Your task to perform on an android device: turn off notifications in google photos Image 0: 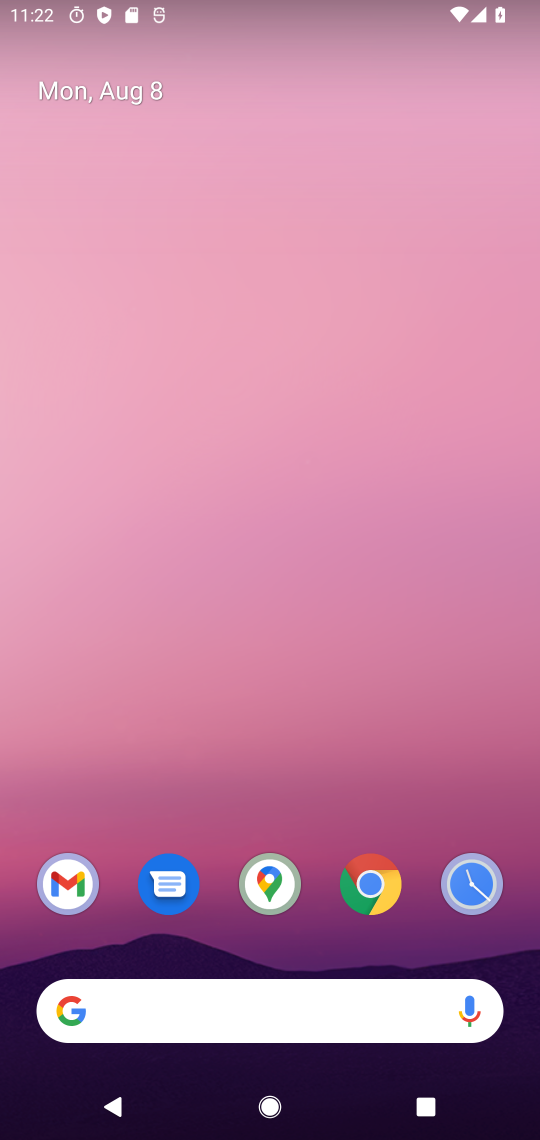
Step 0: click (190, 926)
Your task to perform on an android device: turn off notifications in google photos Image 1: 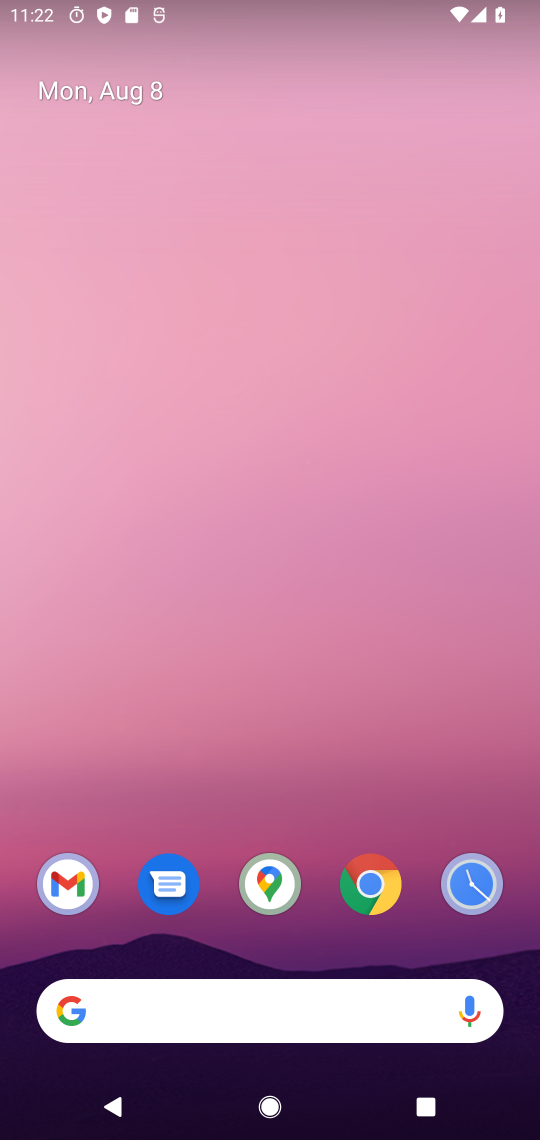
Step 1: drag from (267, 827) to (301, 387)
Your task to perform on an android device: turn off notifications in google photos Image 2: 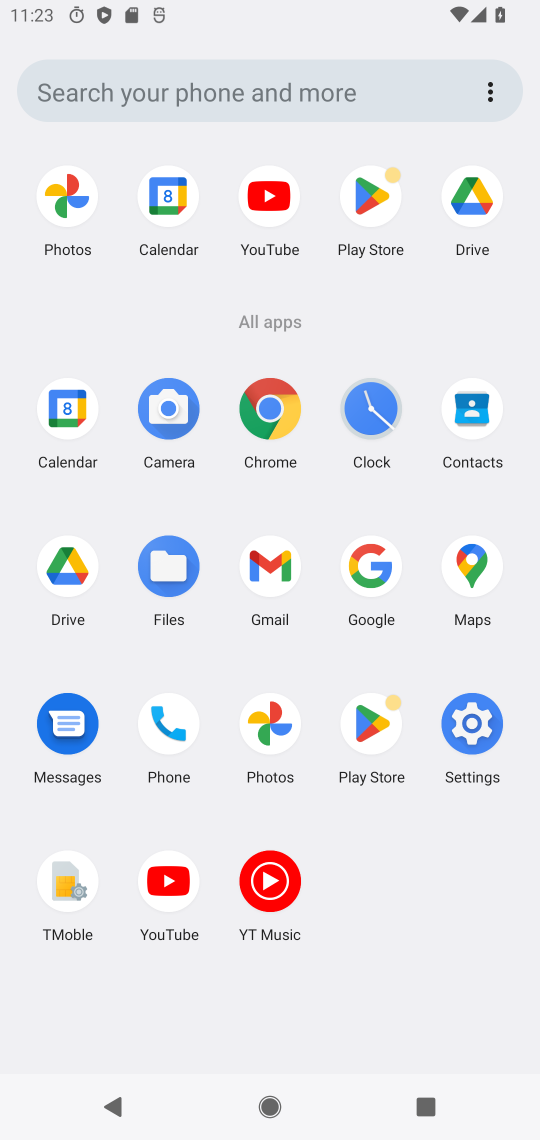
Step 2: click (68, 205)
Your task to perform on an android device: turn off notifications in google photos Image 3: 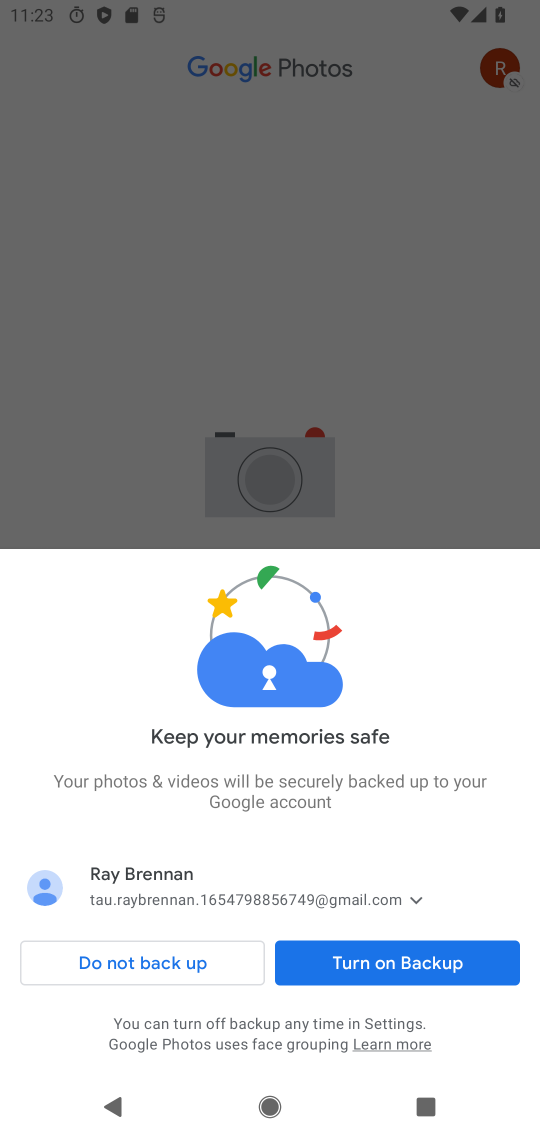
Step 3: click (356, 955)
Your task to perform on an android device: turn off notifications in google photos Image 4: 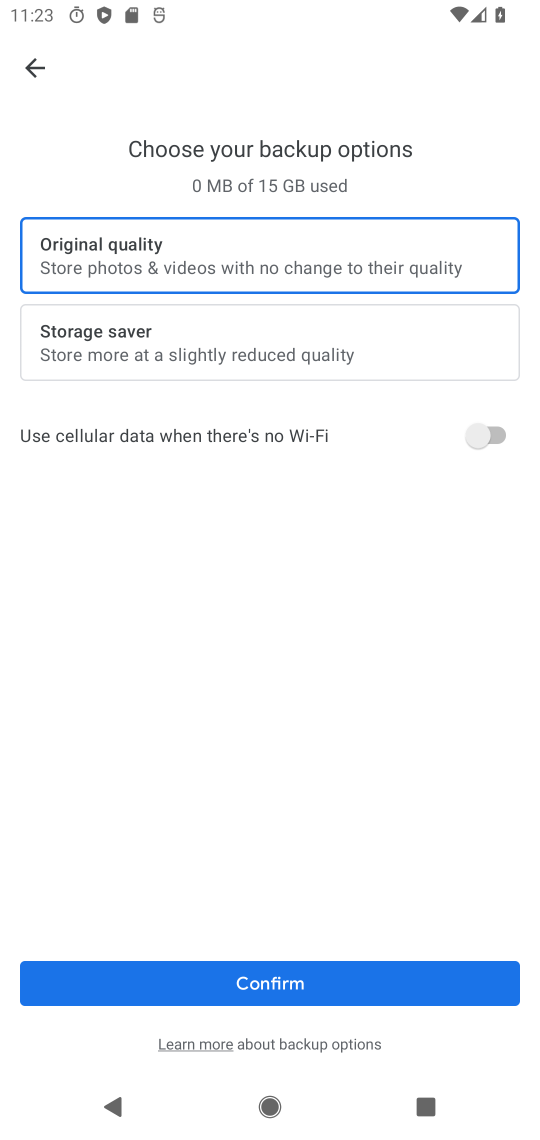
Step 4: click (201, 983)
Your task to perform on an android device: turn off notifications in google photos Image 5: 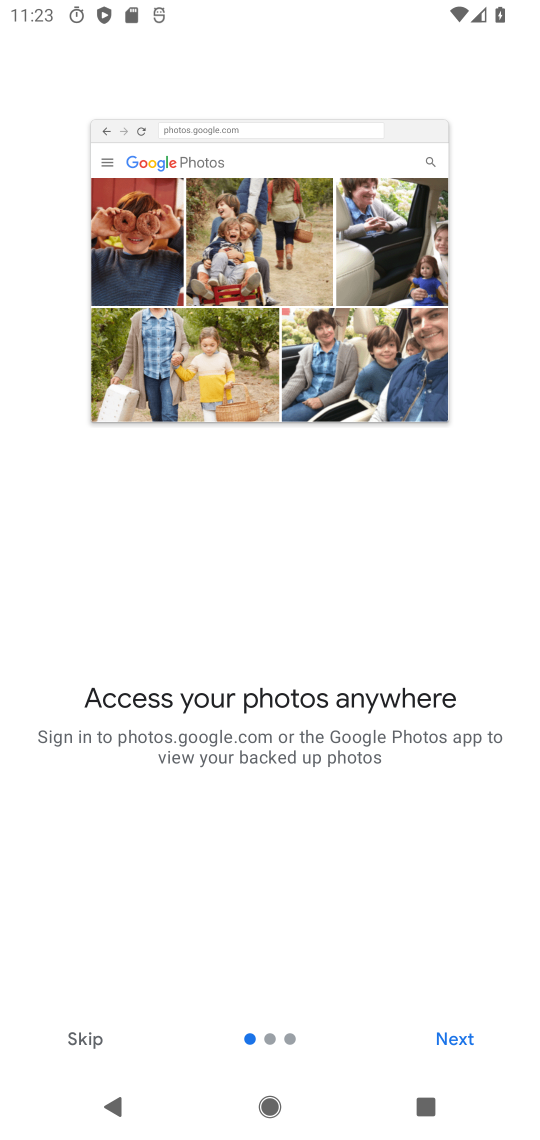
Step 5: click (474, 1041)
Your task to perform on an android device: turn off notifications in google photos Image 6: 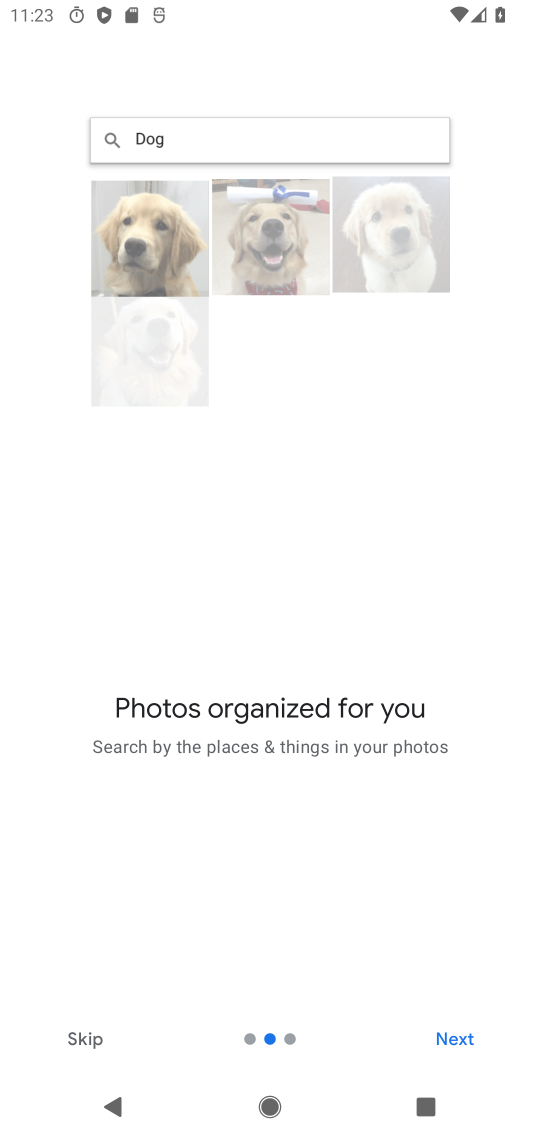
Step 6: click (474, 1041)
Your task to perform on an android device: turn off notifications in google photos Image 7: 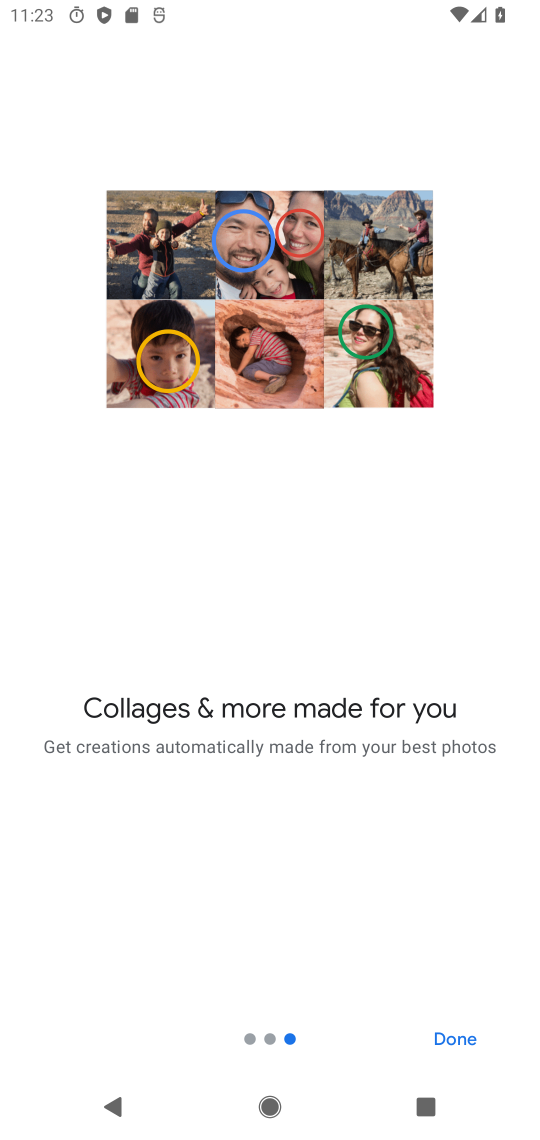
Step 7: click (474, 1041)
Your task to perform on an android device: turn off notifications in google photos Image 8: 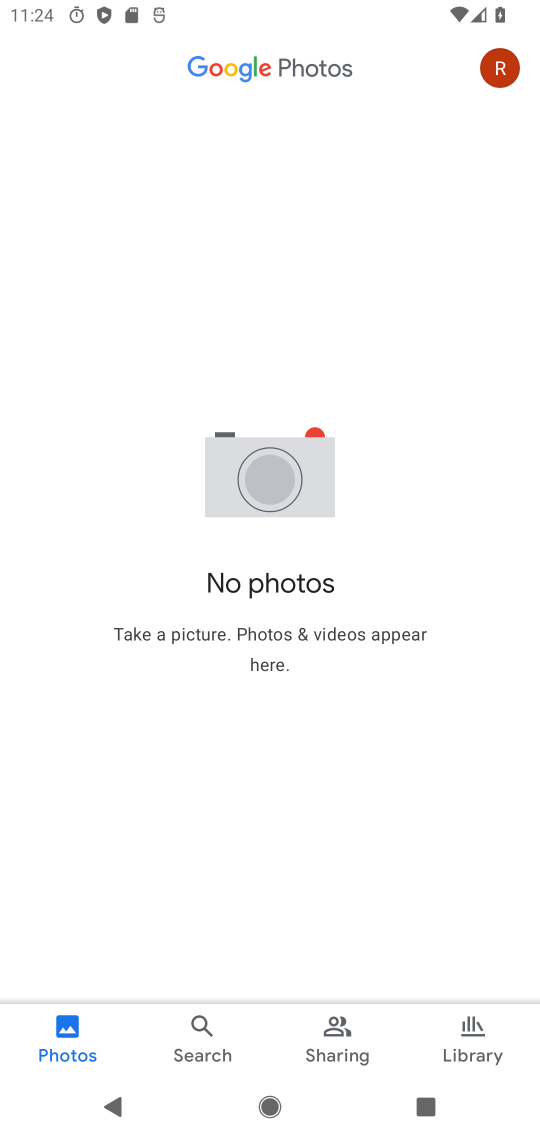
Step 8: click (503, 70)
Your task to perform on an android device: turn off notifications in google photos Image 9: 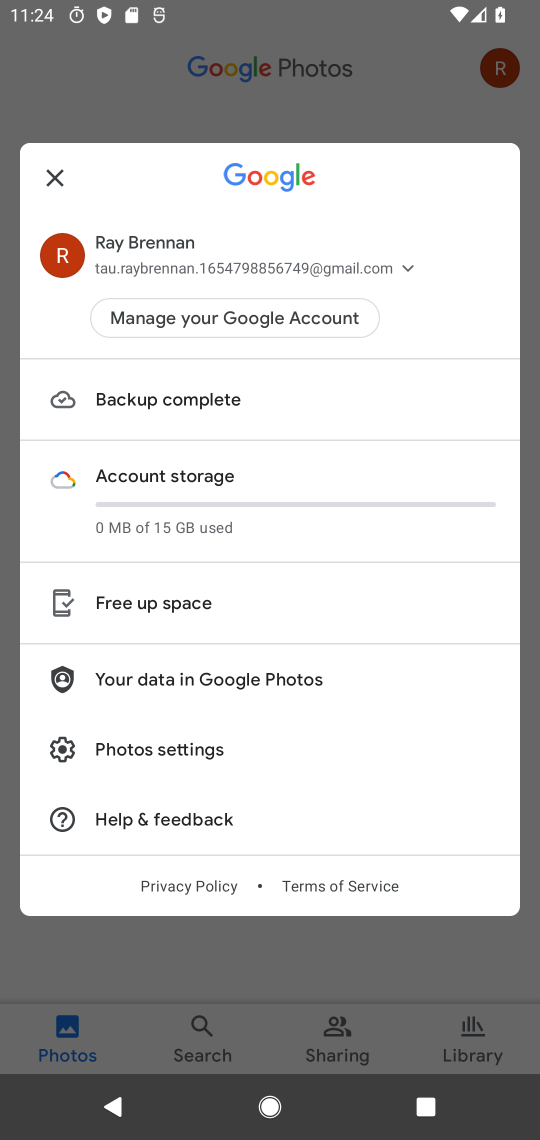
Step 9: click (130, 742)
Your task to perform on an android device: turn off notifications in google photos Image 10: 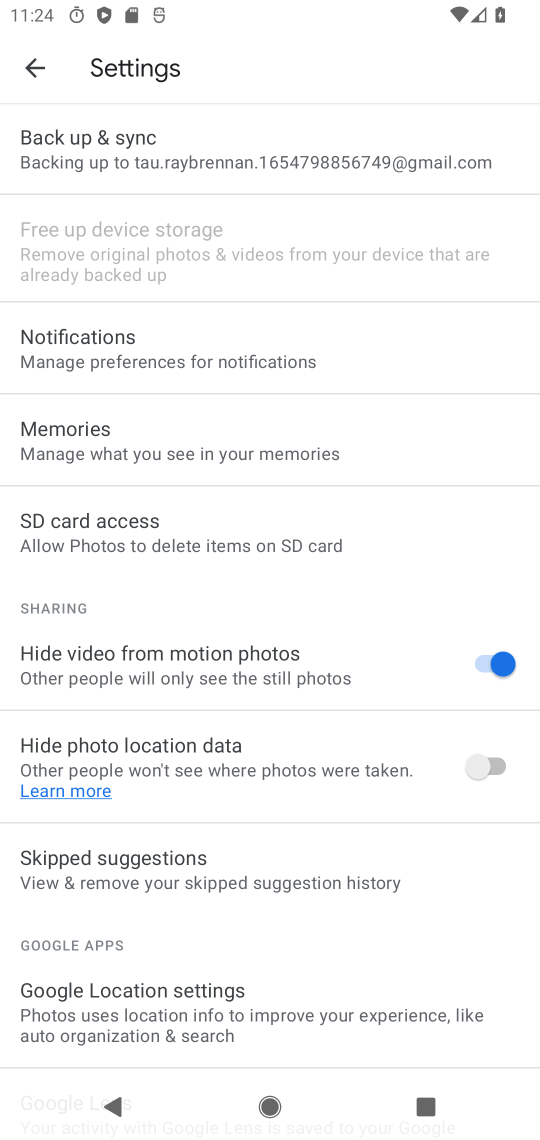
Step 10: click (120, 354)
Your task to perform on an android device: turn off notifications in google photos Image 11: 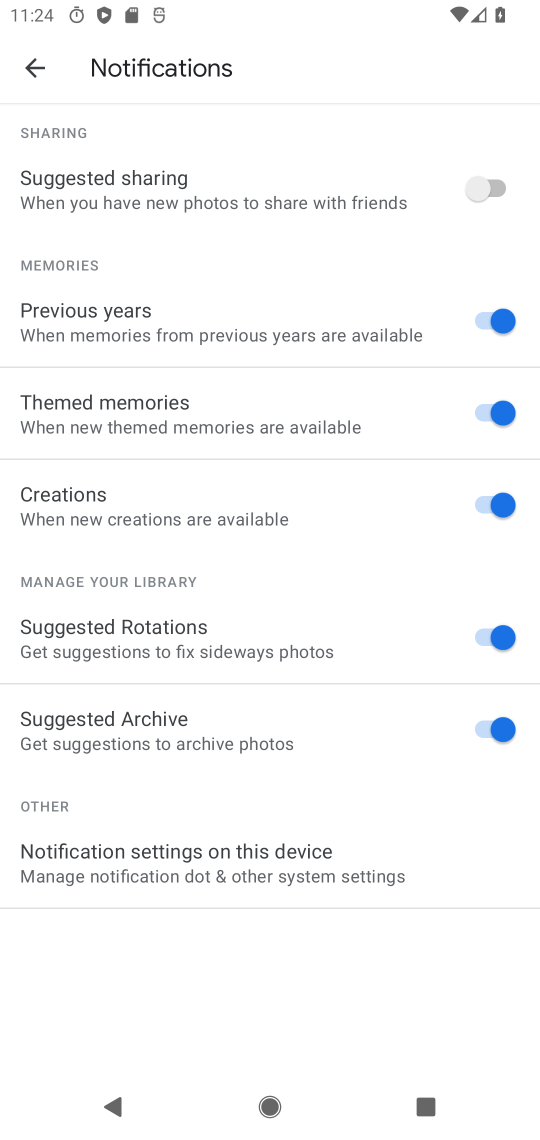
Step 11: click (488, 314)
Your task to perform on an android device: turn off notifications in google photos Image 12: 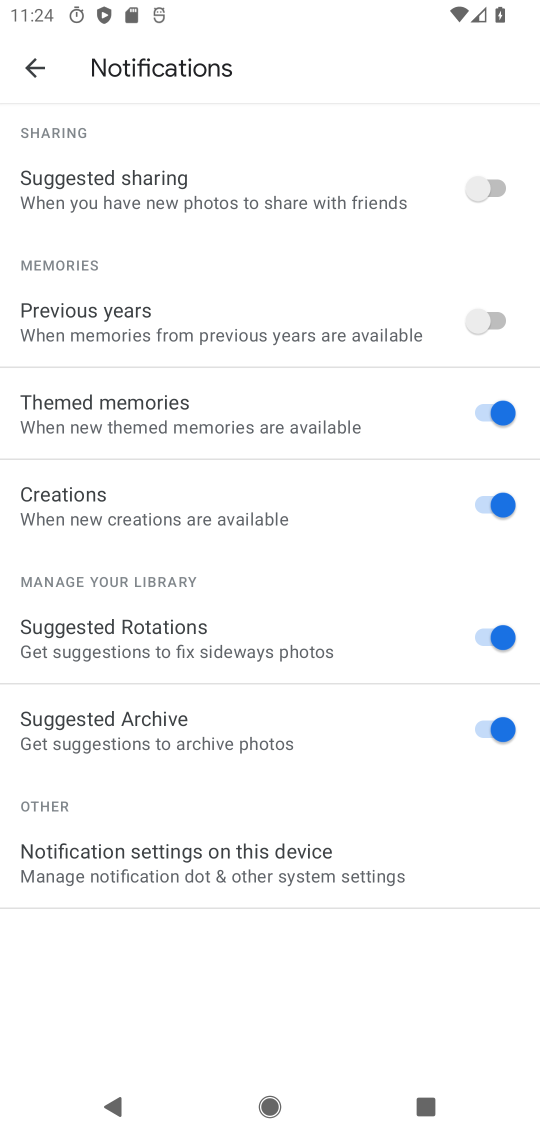
Step 12: click (489, 412)
Your task to perform on an android device: turn off notifications in google photos Image 13: 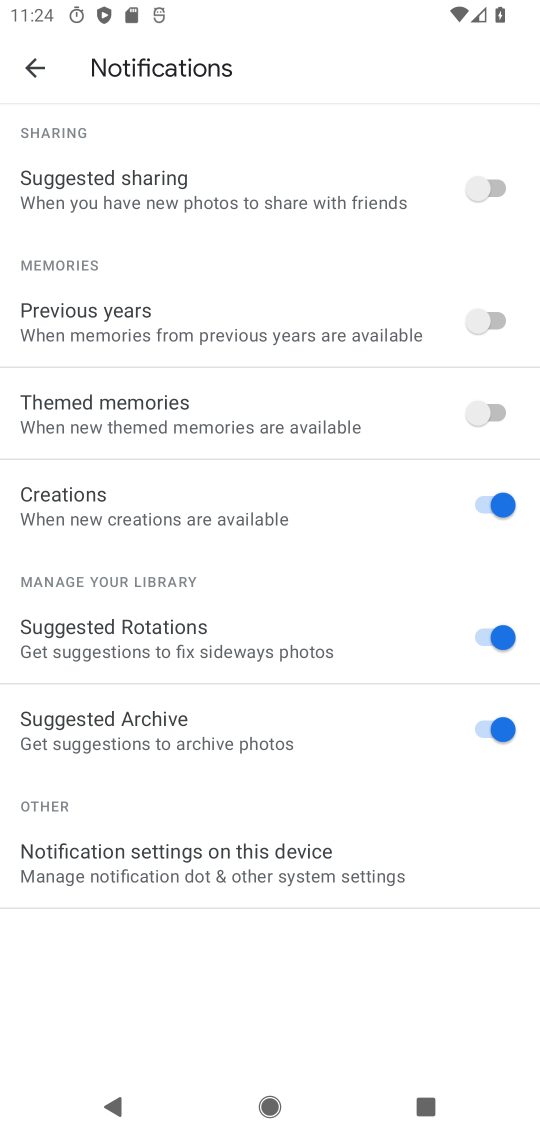
Step 13: click (487, 489)
Your task to perform on an android device: turn off notifications in google photos Image 14: 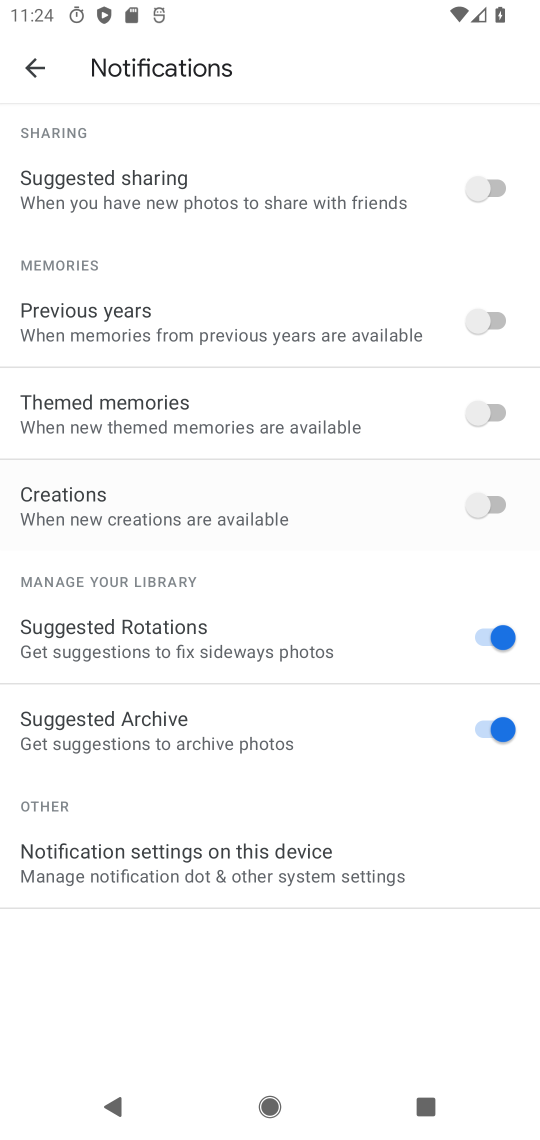
Step 14: click (493, 664)
Your task to perform on an android device: turn off notifications in google photos Image 15: 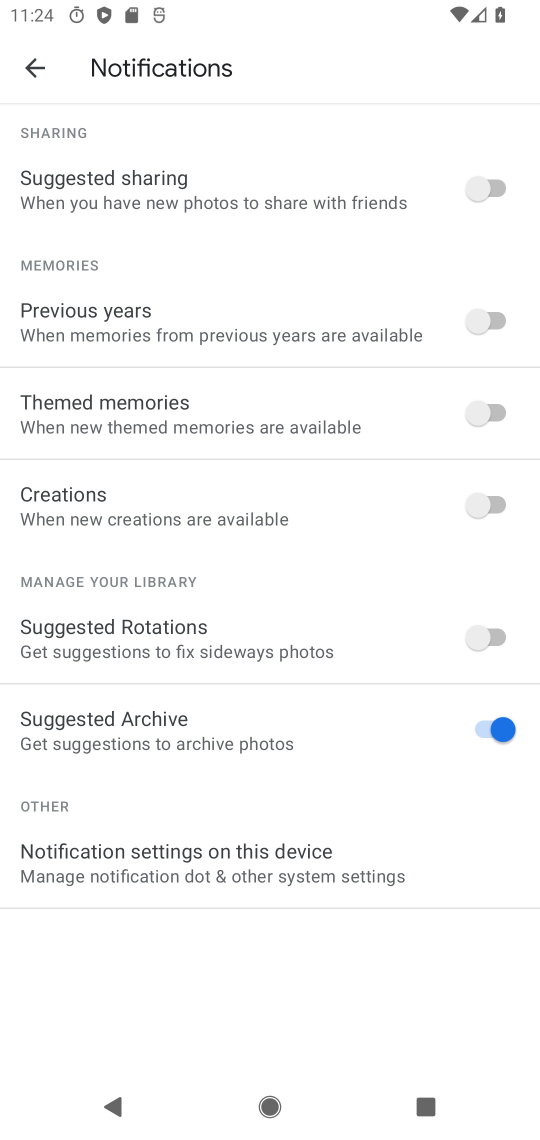
Step 15: click (490, 734)
Your task to perform on an android device: turn off notifications in google photos Image 16: 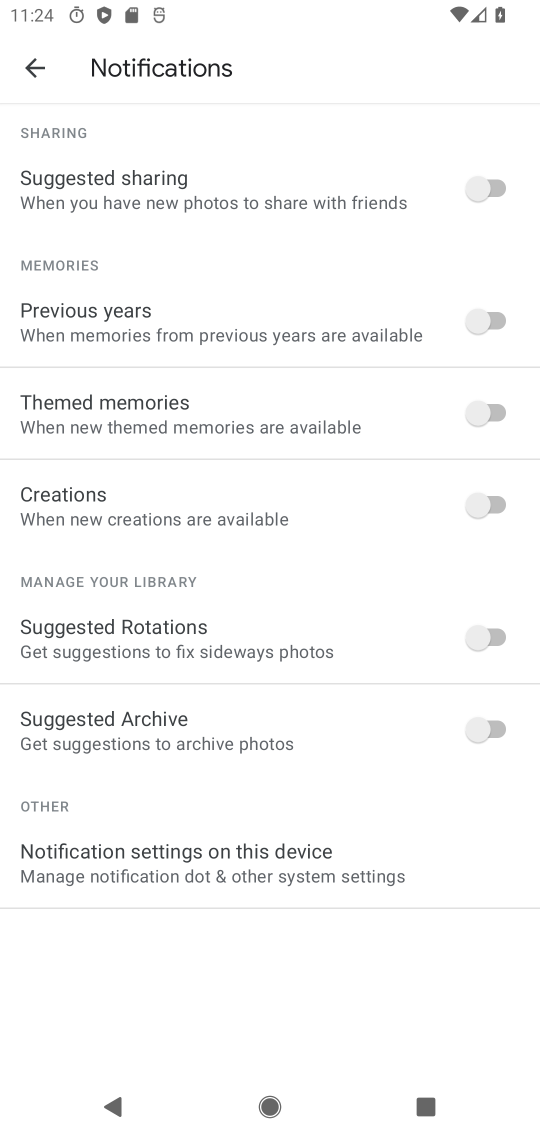
Step 16: task complete